Your task to perform on an android device: Open the web browser Image 0: 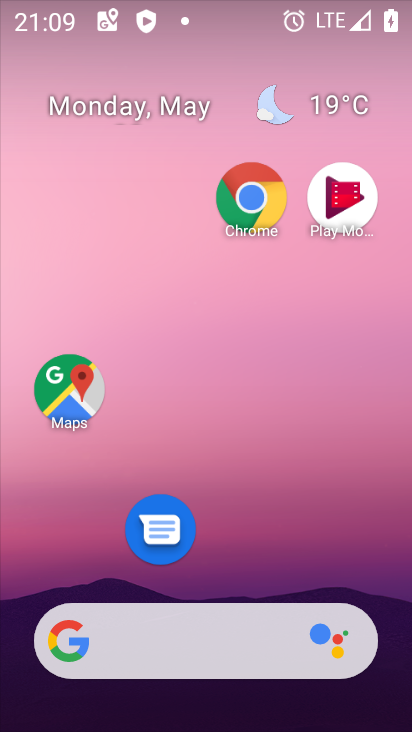
Step 0: click (248, 207)
Your task to perform on an android device: Open the web browser Image 1: 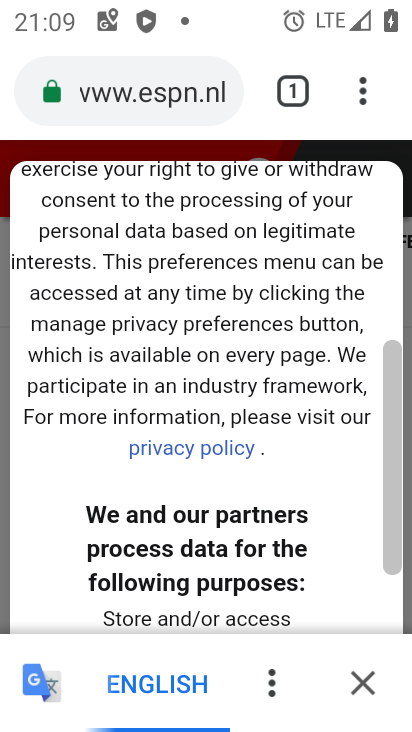
Step 1: task complete